Your task to perform on an android device: set the timer Image 0: 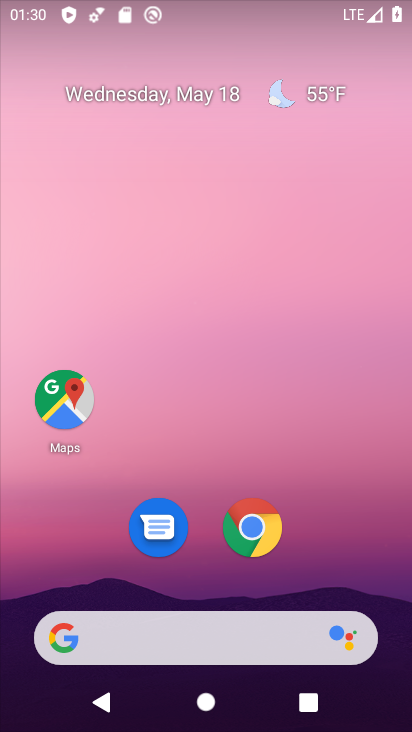
Step 0: drag from (324, 472) to (203, 1)
Your task to perform on an android device: set the timer Image 1: 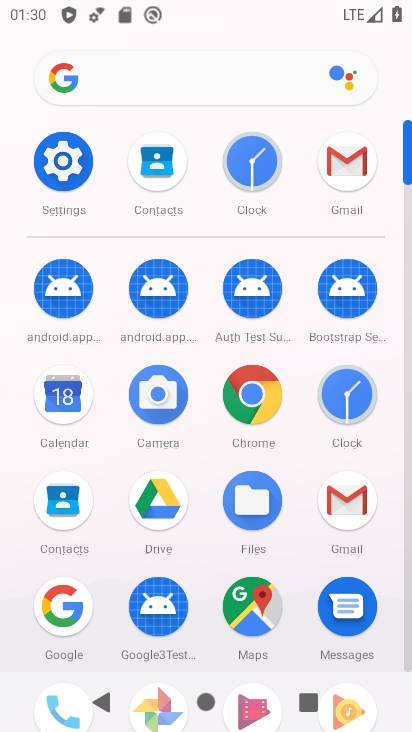
Step 1: click (263, 177)
Your task to perform on an android device: set the timer Image 2: 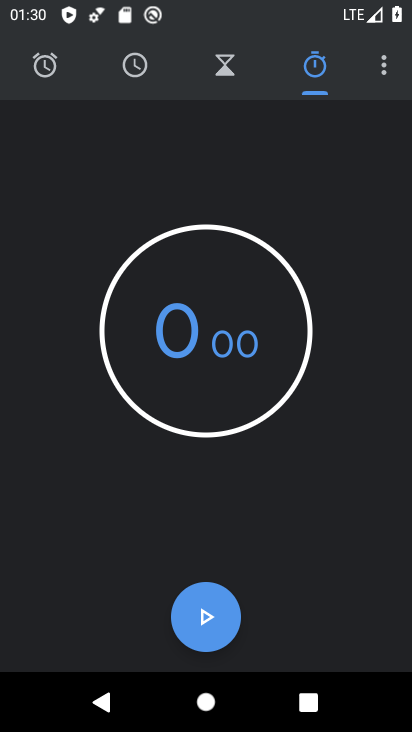
Step 2: click (225, 70)
Your task to perform on an android device: set the timer Image 3: 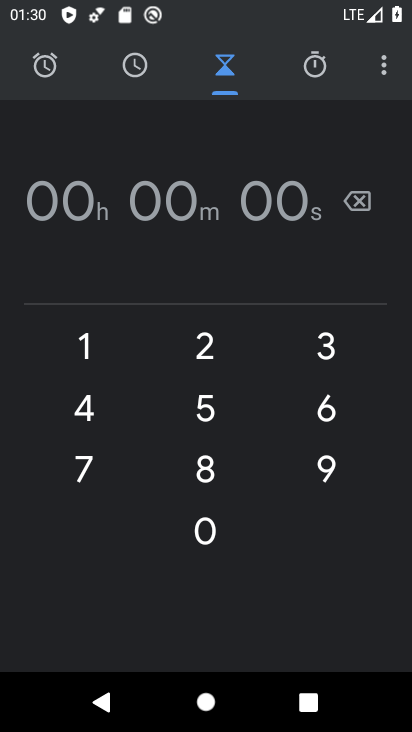
Step 3: click (93, 334)
Your task to perform on an android device: set the timer Image 4: 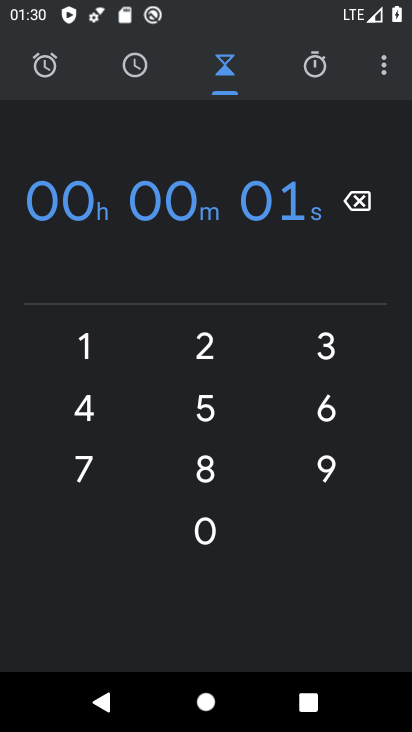
Step 4: click (93, 334)
Your task to perform on an android device: set the timer Image 5: 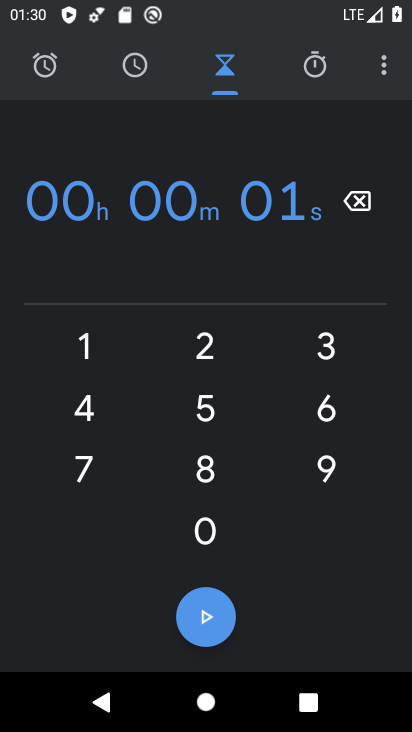
Step 5: click (93, 334)
Your task to perform on an android device: set the timer Image 6: 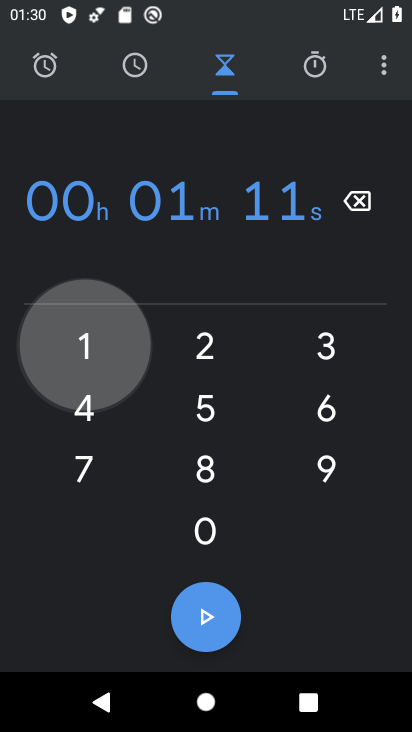
Step 6: click (93, 334)
Your task to perform on an android device: set the timer Image 7: 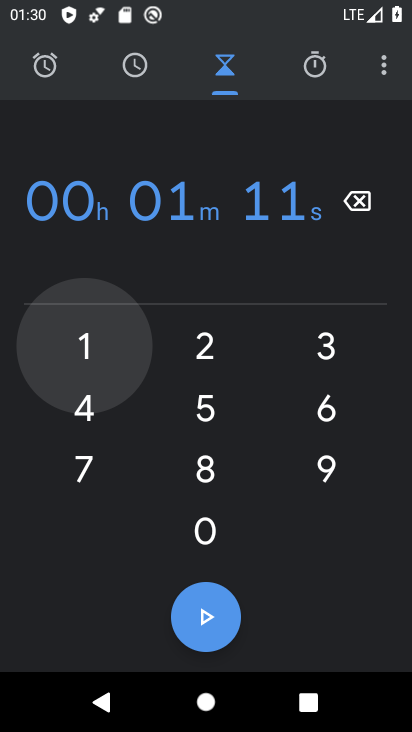
Step 7: click (93, 334)
Your task to perform on an android device: set the timer Image 8: 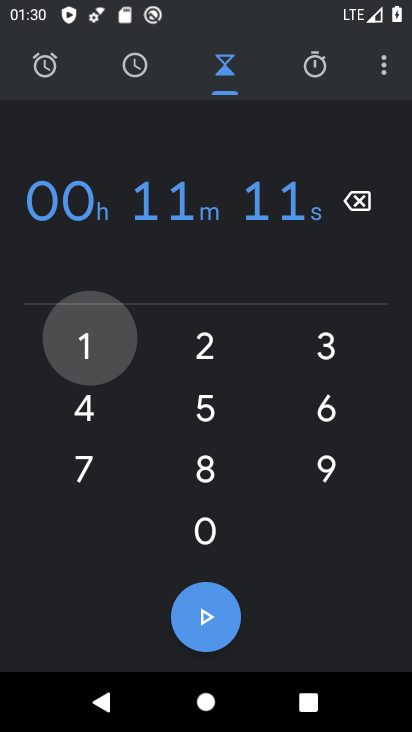
Step 8: click (93, 334)
Your task to perform on an android device: set the timer Image 9: 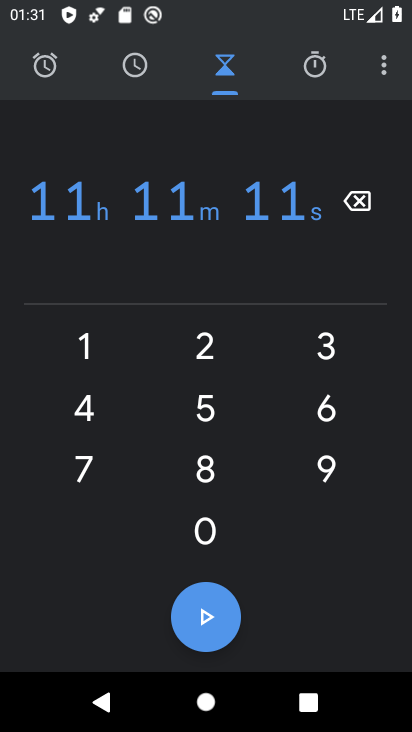
Step 9: click (100, 330)
Your task to perform on an android device: set the timer Image 10: 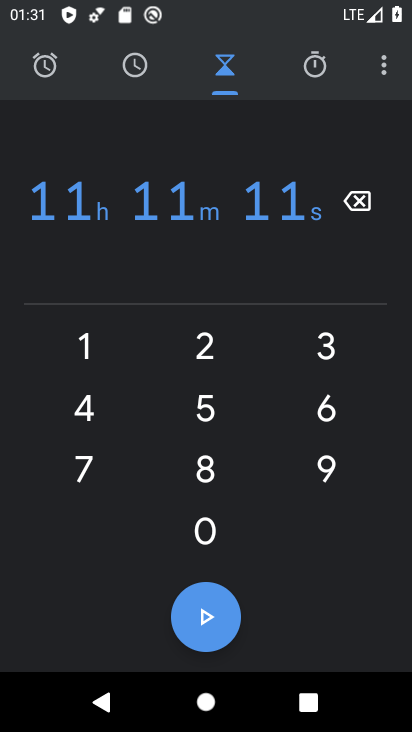
Step 10: click (216, 603)
Your task to perform on an android device: set the timer Image 11: 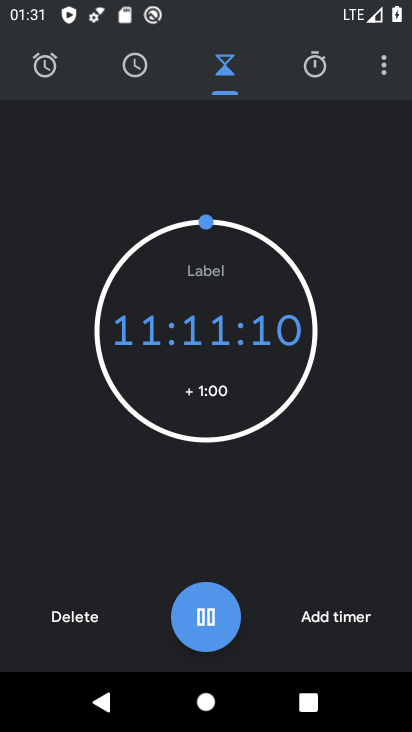
Step 11: task complete